Your task to perform on an android device: What's the weather going to be tomorrow? Image 0: 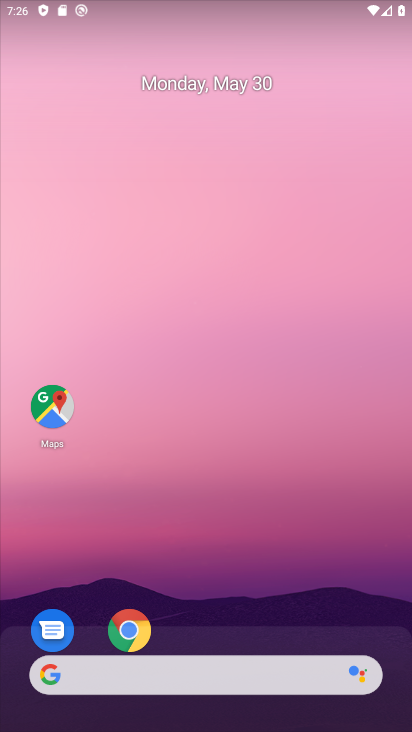
Step 0: click (56, 694)
Your task to perform on an android device: What's the weather going to be tomorrow? Image 1: 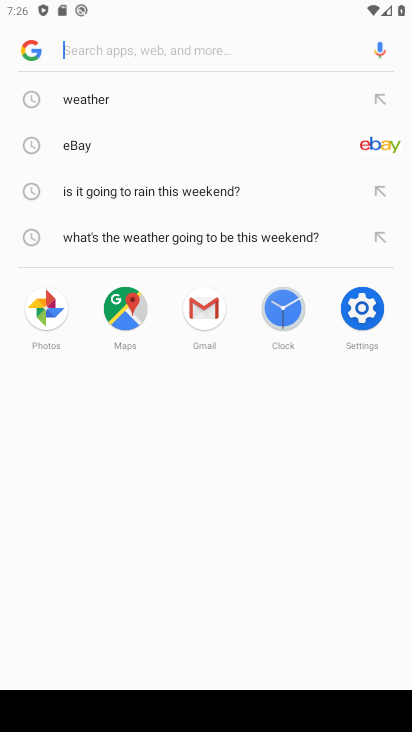
Step 1: click (101, 102)
Your task to perform on an android device: What's the weather going to be tomorrow? Image 2: 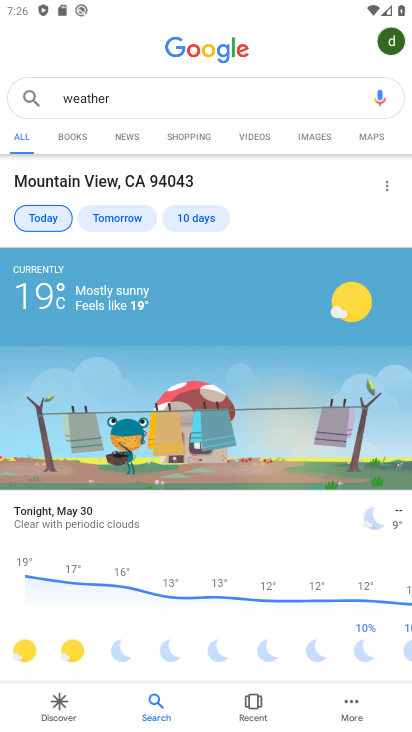
Step 2: click (124, 219)
Your task to perform on an android device: What's the weather going to be tomorrow? Image 3: 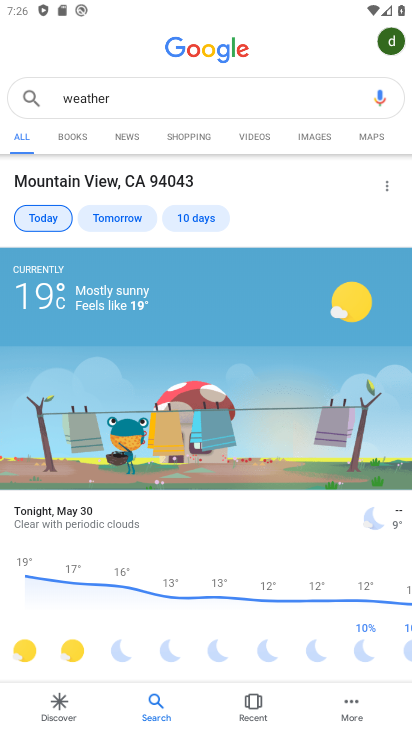
Step 3: click (109, 215)
Your task to perform on an android device: What's the weather going to be tomorrow? Image 4: 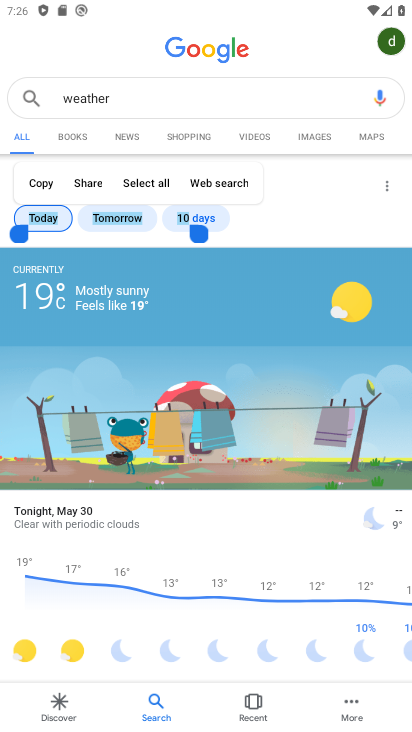
Step 4: click (111, 217)
Your task to perform on an android device: What's the weather going to be tomorrow? Image 5: 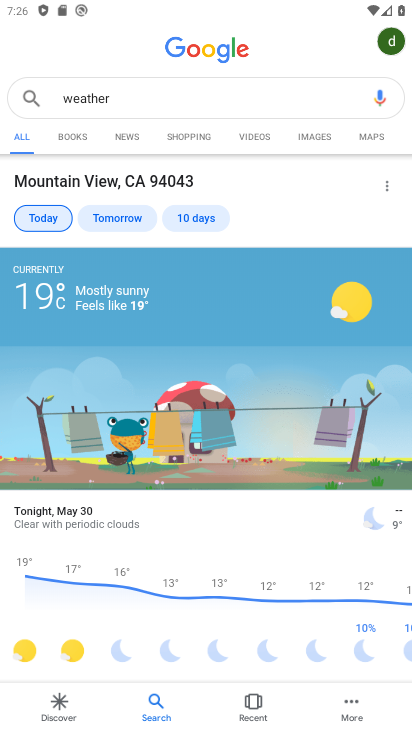
Step 5: click (114, 217)
Your task to perform on an android device: What's the weather going to be tomorrow? Image 6: 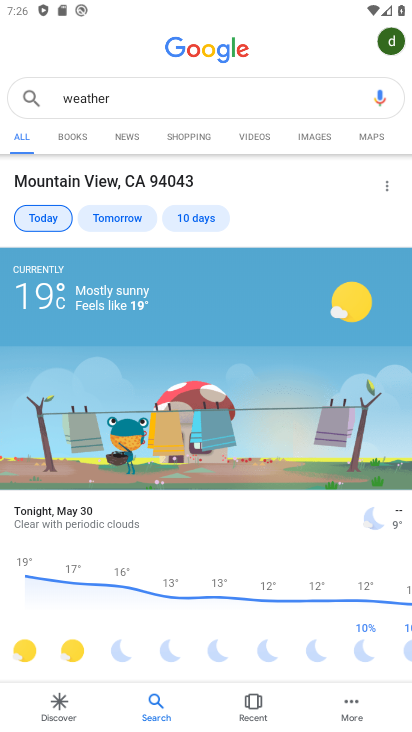
Step 6: click (64, 710)
Your task to perform on an android device: What's the weather going to be tomorrow? Image 7: 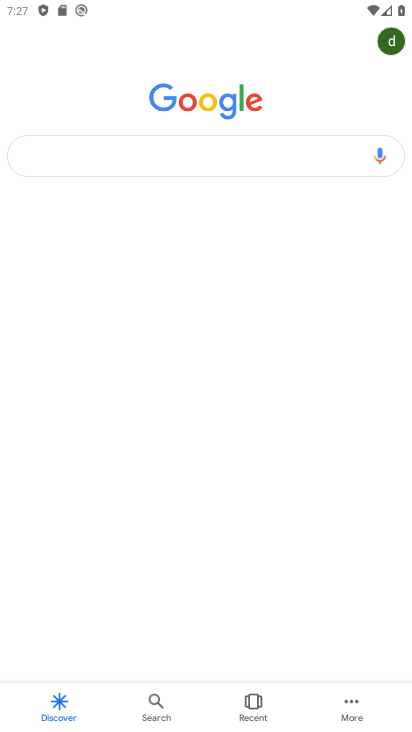
Step 7: task complete